Your task to perform on an android device: Open network settings Image 0: 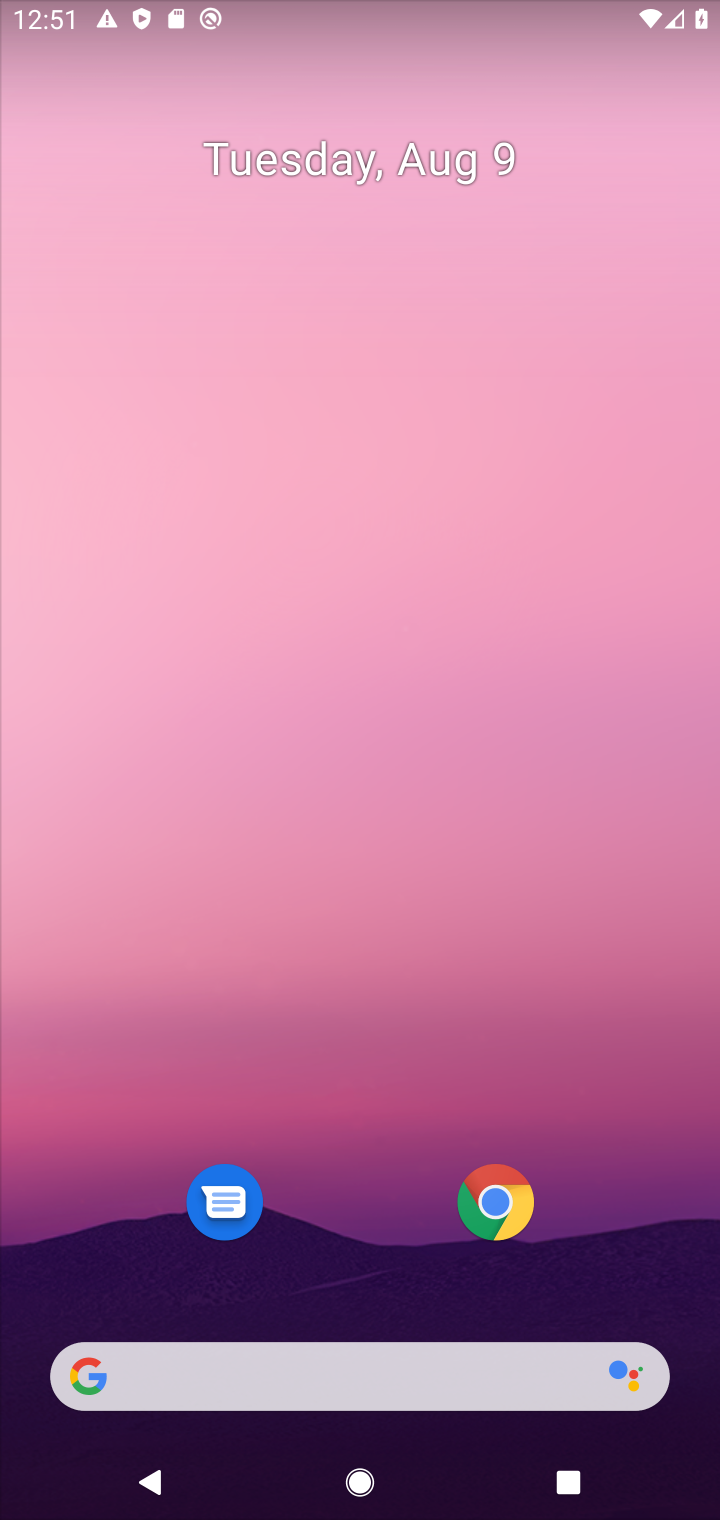
Step 0: press home button
Your task to perform on an android device: Open network settings Image 1: 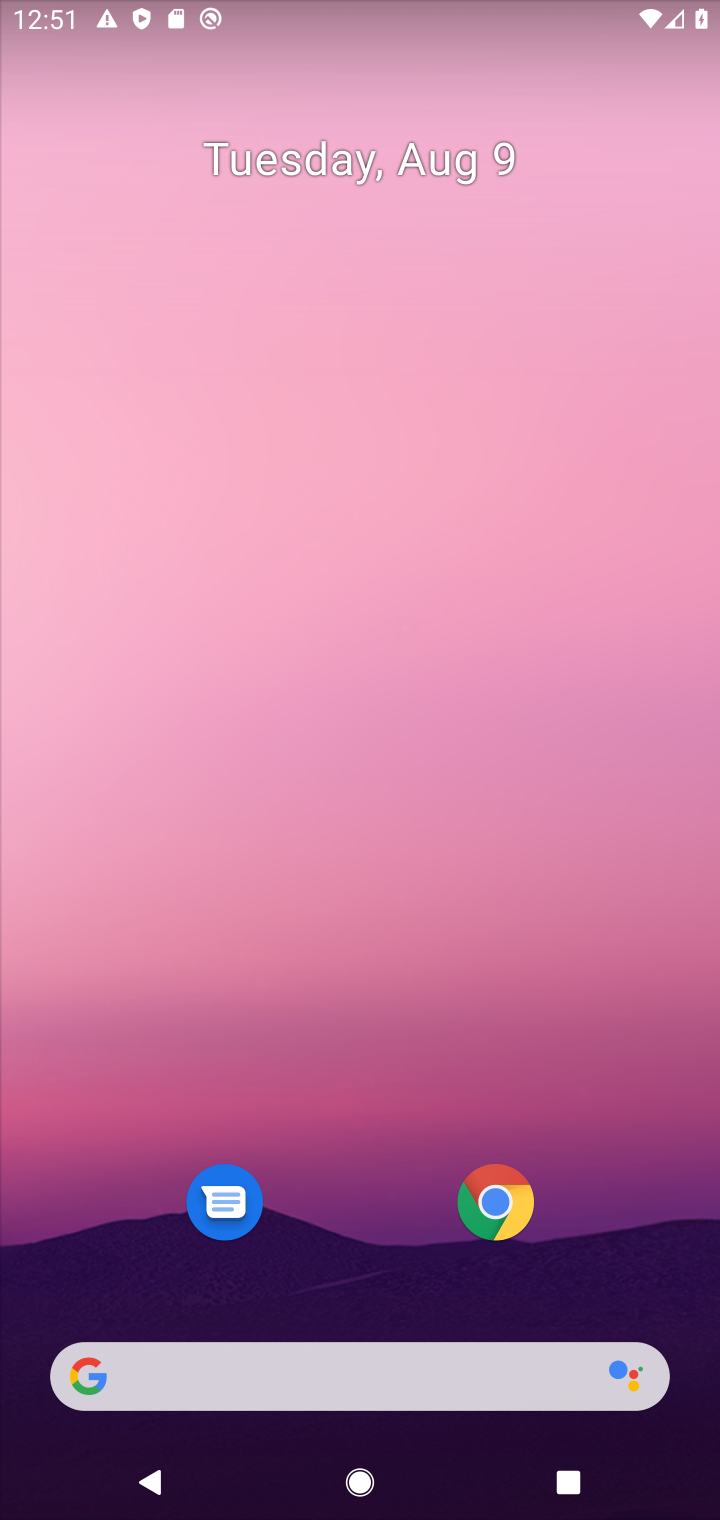
Step 1: drag from (374, 1273) to (405, 112)
Your task to perform on an android device: Open network settings Image 2: 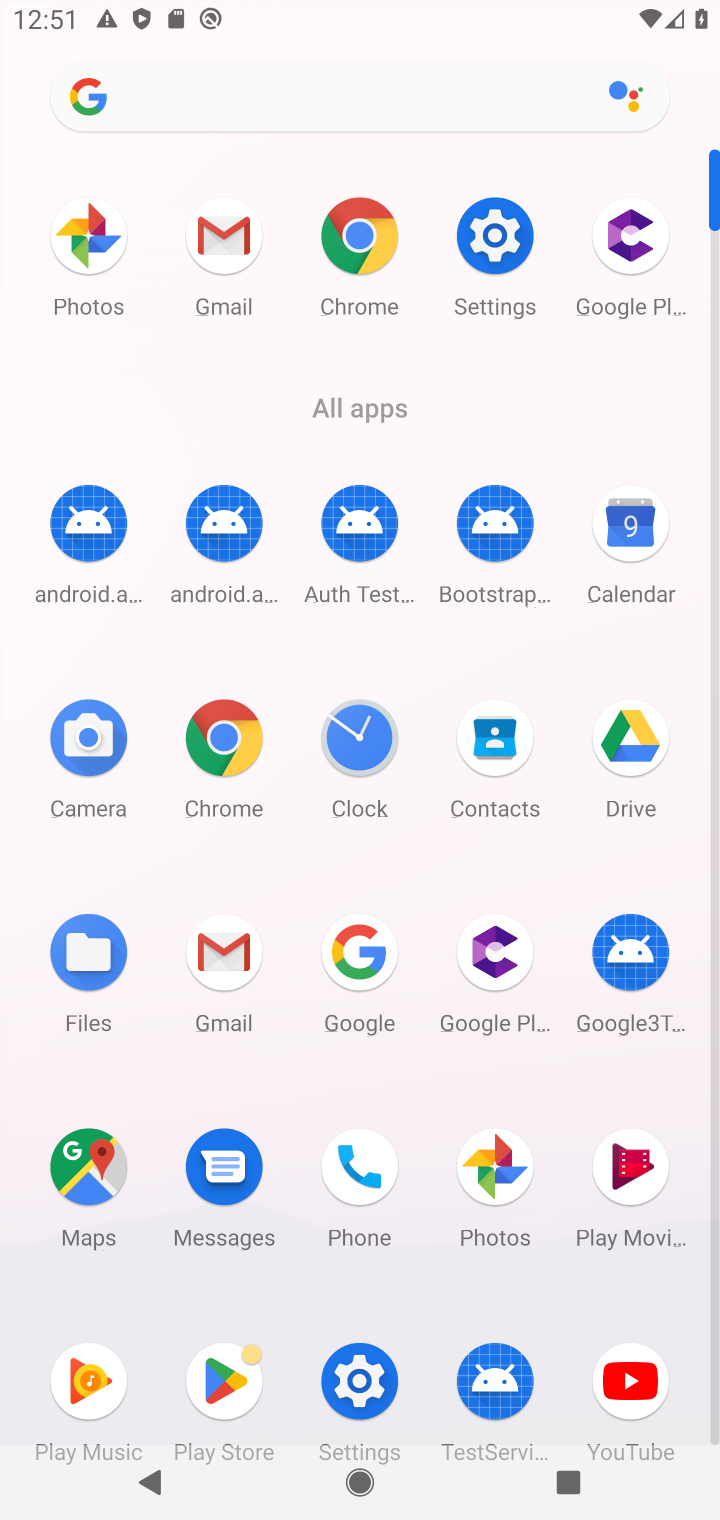
Step 2: click (488, 236)
Your task to perform on an android device: Open network settings Image 3: 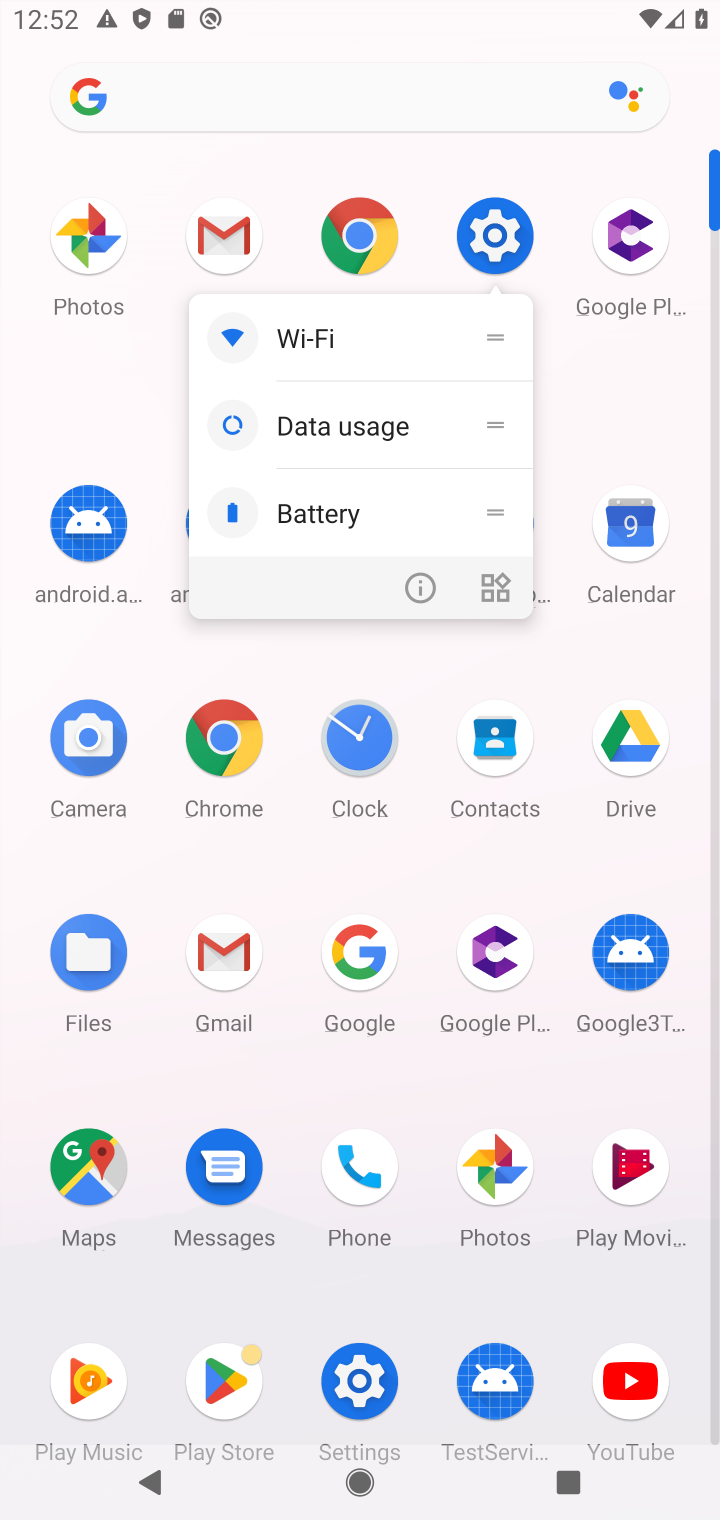
Step 3: click (492, 226)
Your task to perform on an android device: Open network settings Image 4: 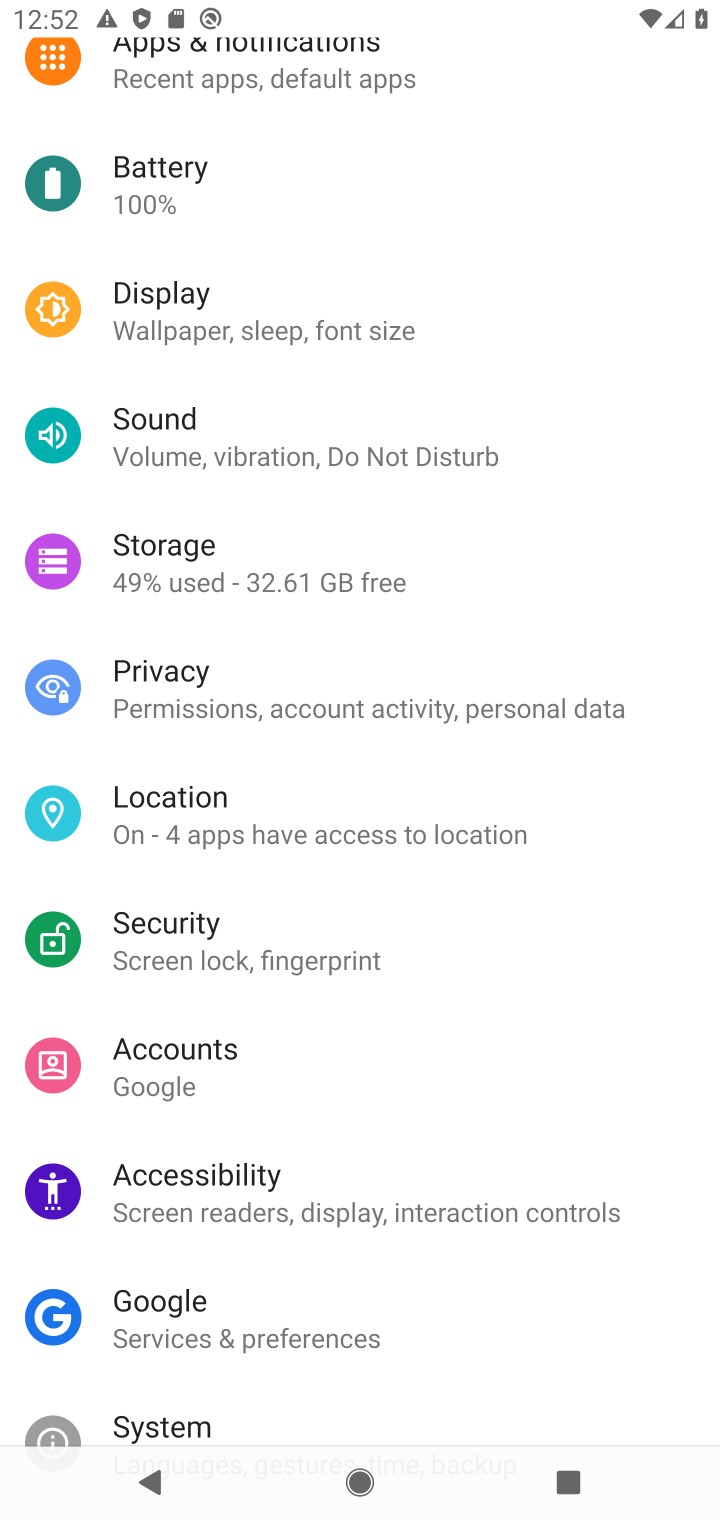
Step 4: drag from (230, 223) to (219, 1477)
Your task to perform on an android device: Open network settings Image 5: 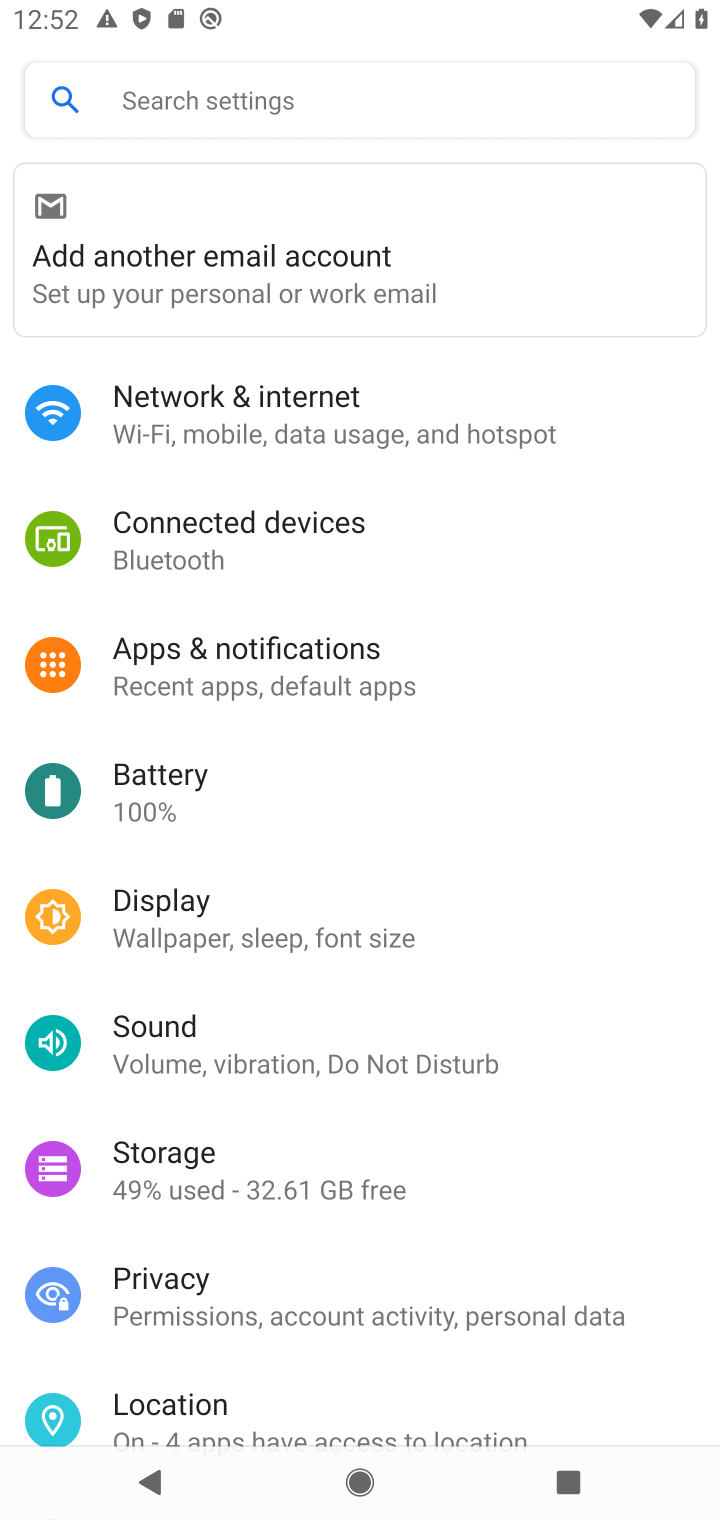
Step 5: click (327, 411)
Your task to perform on an android device: Open network settings Image 6: 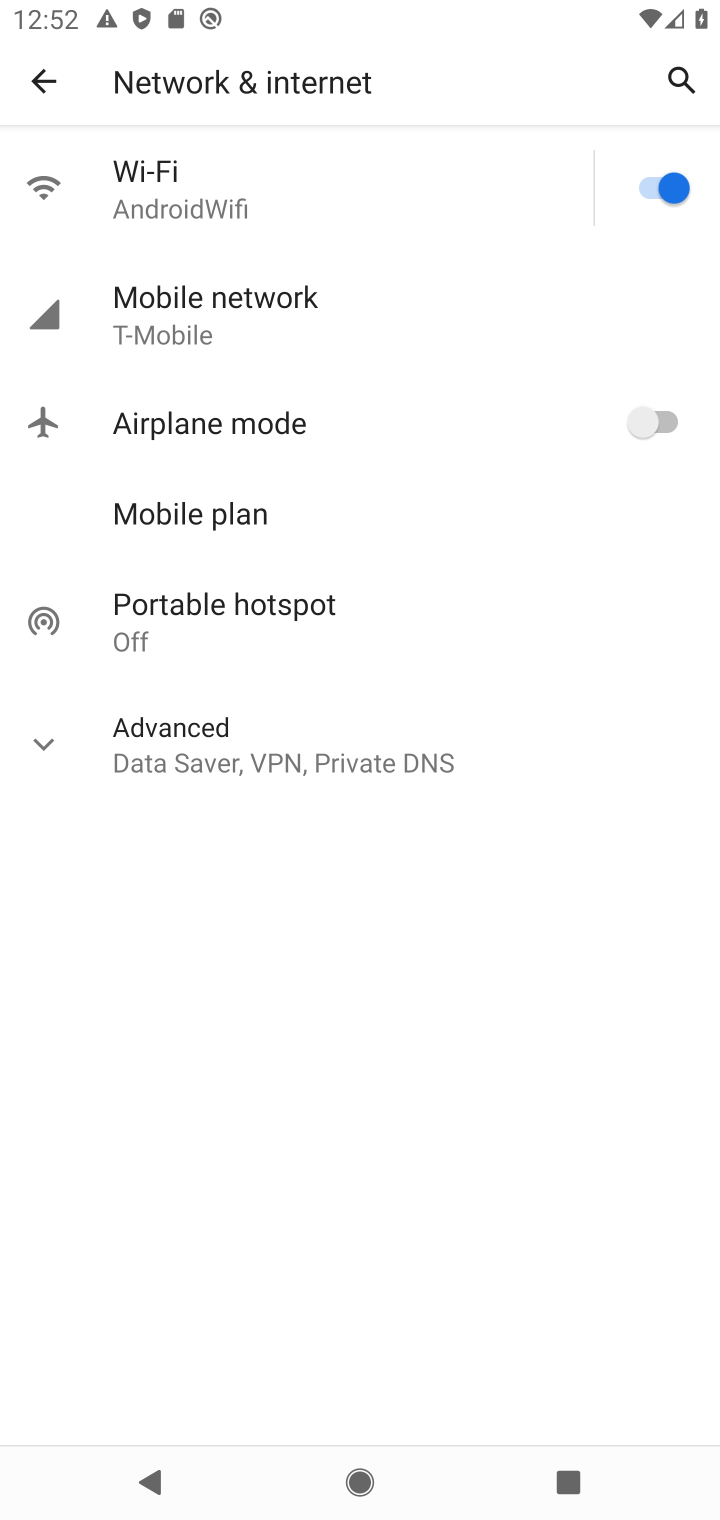
Step 6: click (50, 743)
Your task to perform on an android device: Open network settings Image 7: 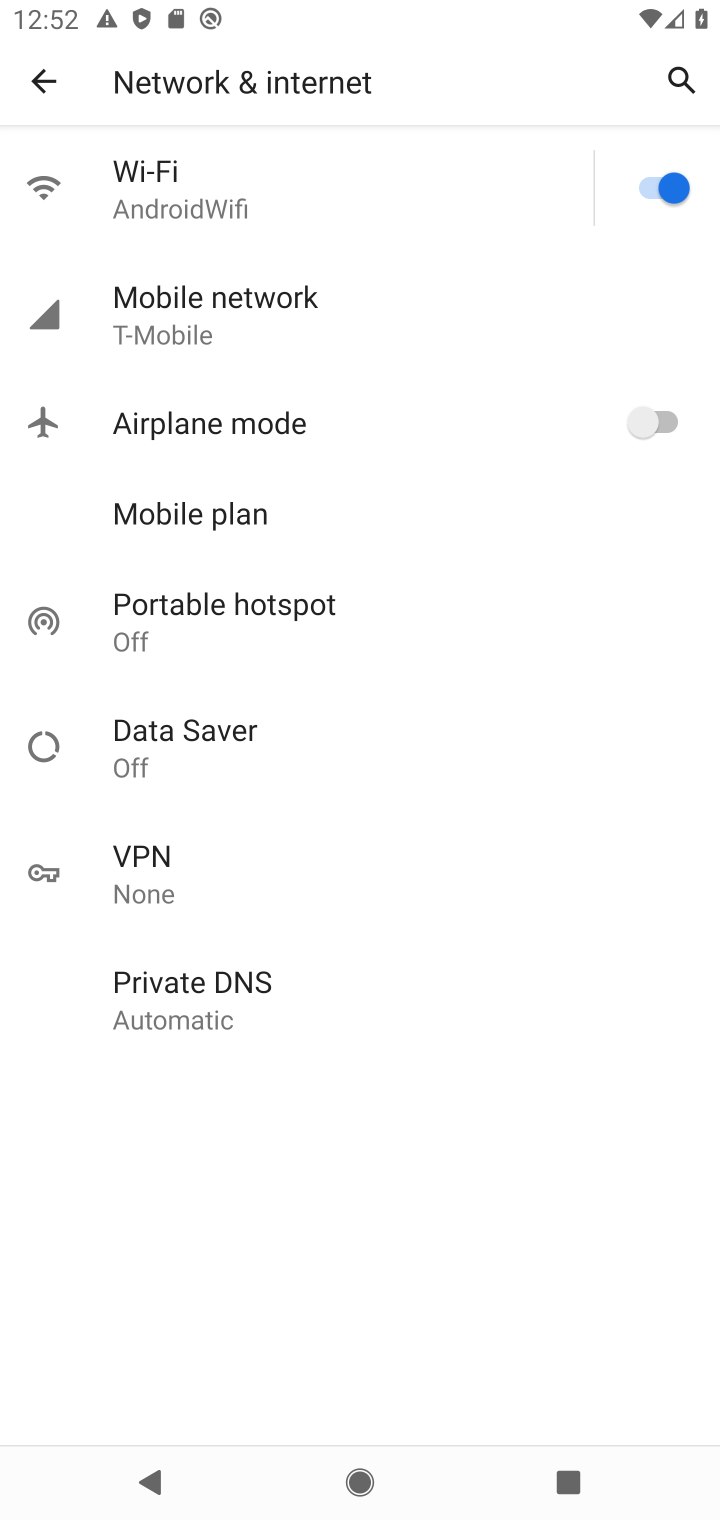
Step 7: task complete